Your task to perform on an android device: Go to accessibility settings Image 0: 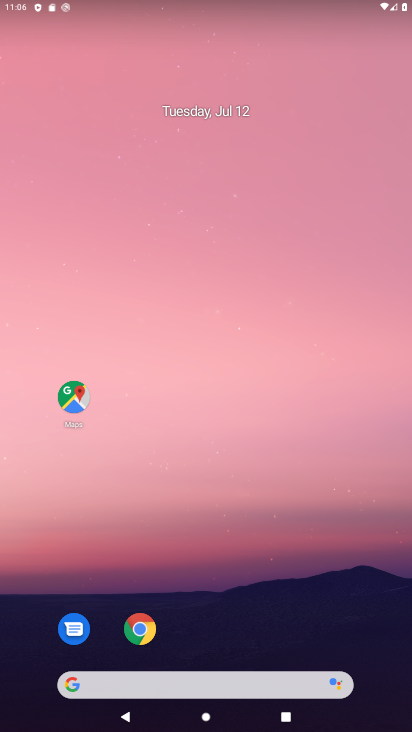
Step 0: drag from (271, 584) to (394, 71)
Your task to perform on an android device: Go to accessibility settings Image 1: 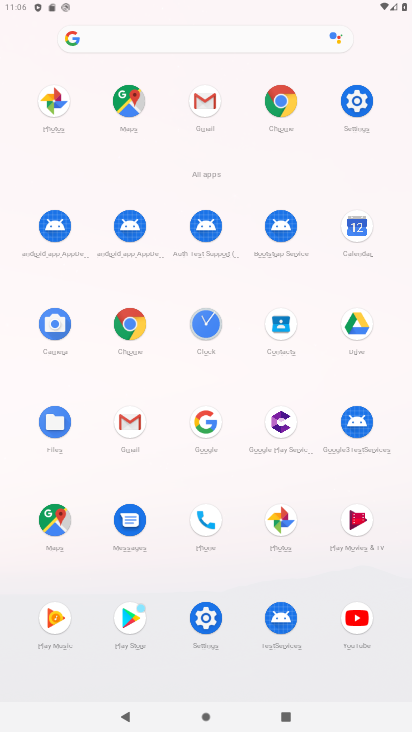
Step 1: click (361, 95)
Your task to perform on an android device: Go to accessibility settings Image 2: 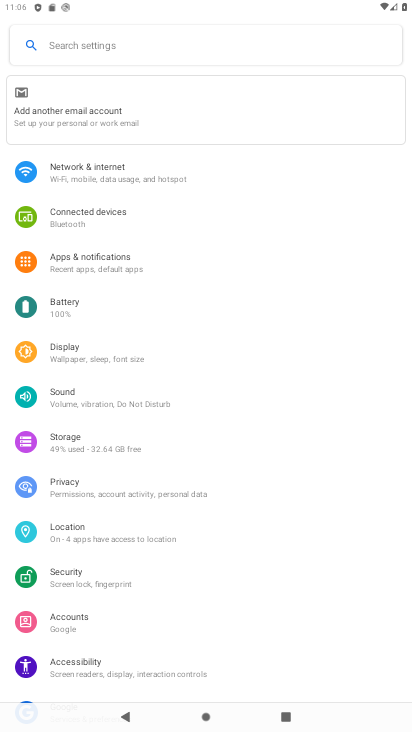
Step 2: drag from (96, 588) to (195, 129)
Your task to perform on an android device: Go to accessibility settings Image 3: 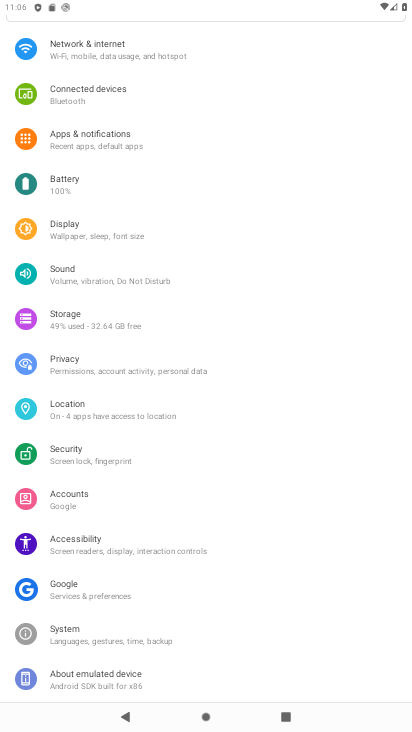
Step 3: click (71, 537)
Your task to perform on an android device: Go to accessibility settings Image 4: 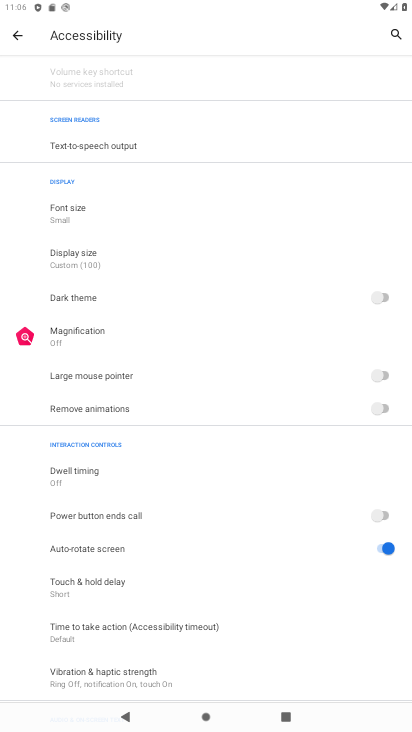
Step 4: task complete